Your task to perform on an android device: Open the calendar app, open the side menu, and click the "Day" option Image 0: 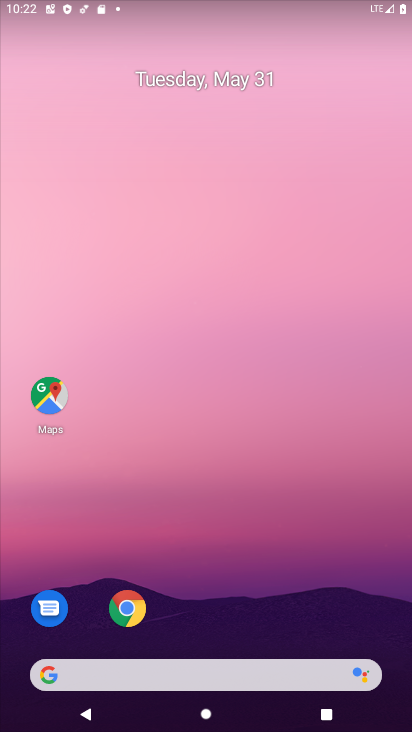
Step 0: drag from (212, 643) to (214, 133)
Your task to perform on an android device: Open the calendar app, open the side menu, and click the "Day" option Image 1: 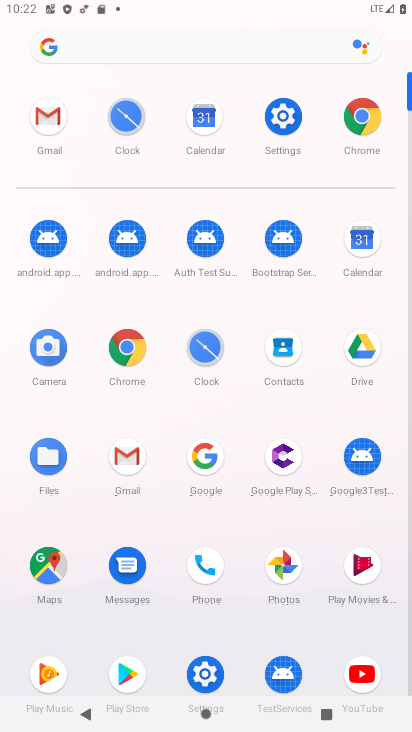
Step 1: click (365, 245)
Your task to perform on an android device: Open the calendar app, open the side menu, and click the "Day" option Image 2: 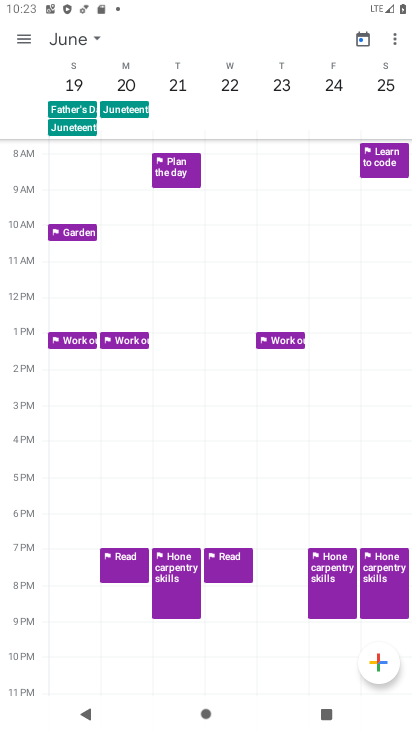
Step 2: click (18, 49)
Your task to perform on an android device: Open the calendar app, open the side menu, and click the "Day" option Image 3: 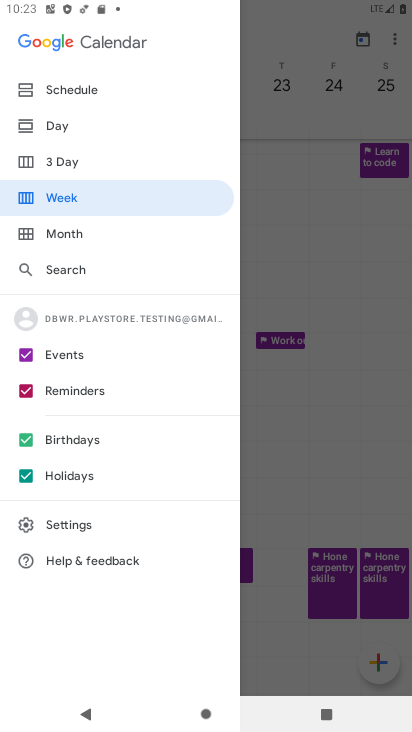
Step 3: click (60, 130)
Your task to perform on an android device: Open the calendar app, open the side menu, and click the "Day" option Image 4: 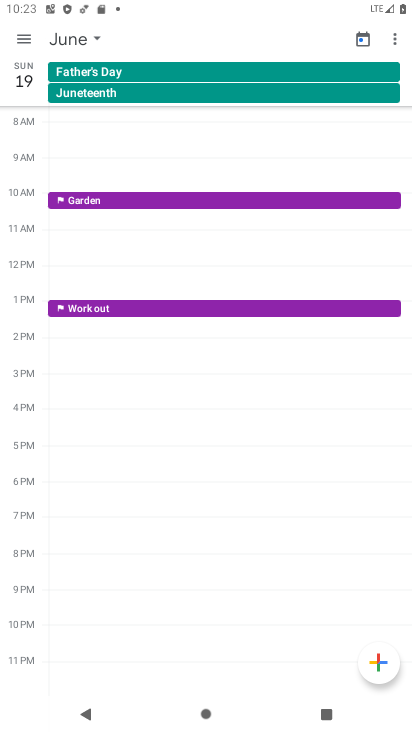
Step 4: task complete